Your task to perform on an android device: turn smart compose on in the gmail app Image 0: 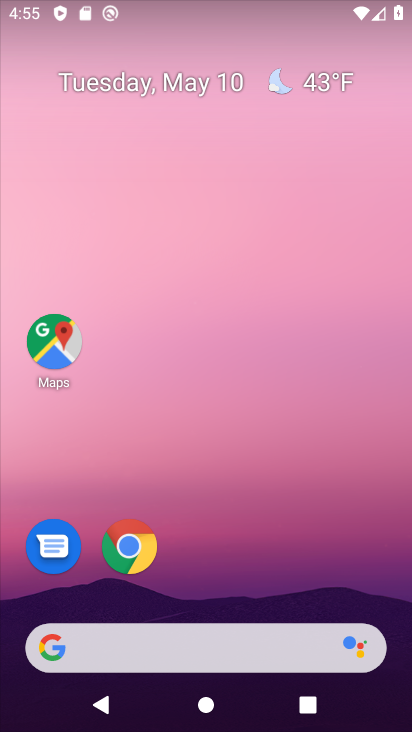
Step 0: drag from (383, 676) to (157, 142)
Your task to perform on an android device: turn smart compose on in the gmail app Image 1: 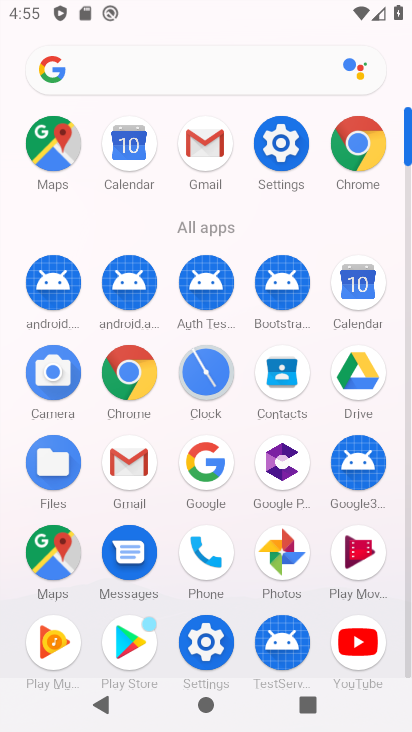
Step 1: click (114, 433)
Your task to perform on an android device: turn smart compose on in the gmail app Image 2: 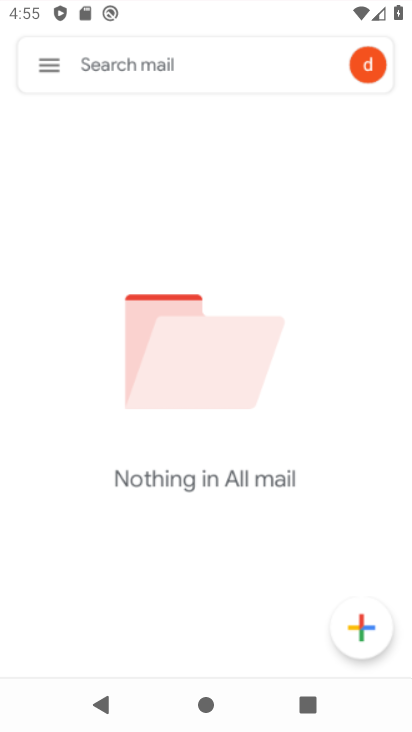
Step 2: click (120, 448)
Your task to perform on an android device: turn smart compose on in the gmail app Image 3: 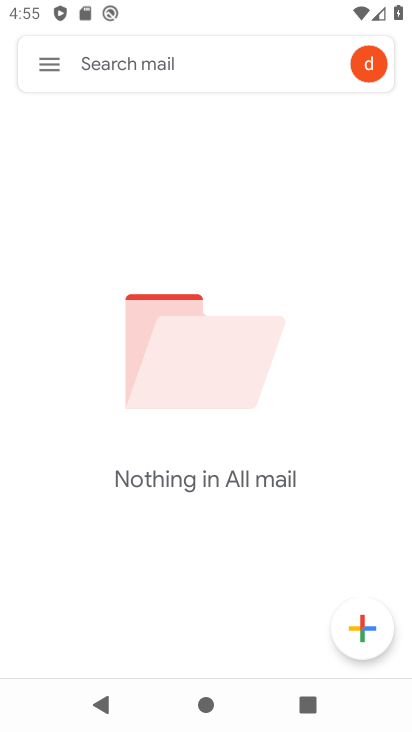
Step 3: click (47, 61)
Your task to perform on an android device: turn smart compose on in the gmail app Image 4: 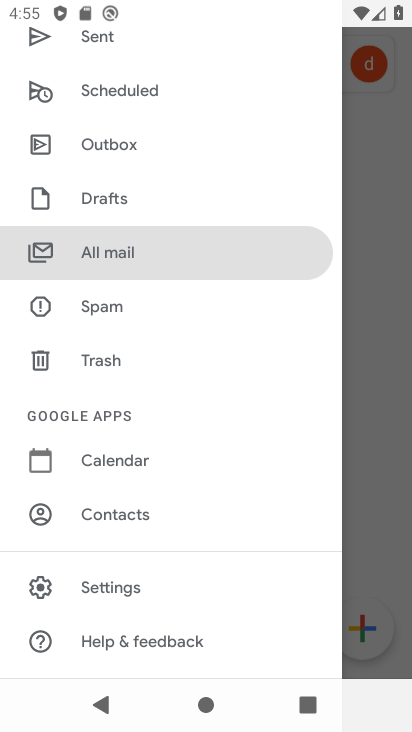
Step 4: click (104, 577)
Your task to perform on an android device: turn smart compose on in the gmail app Image 5: 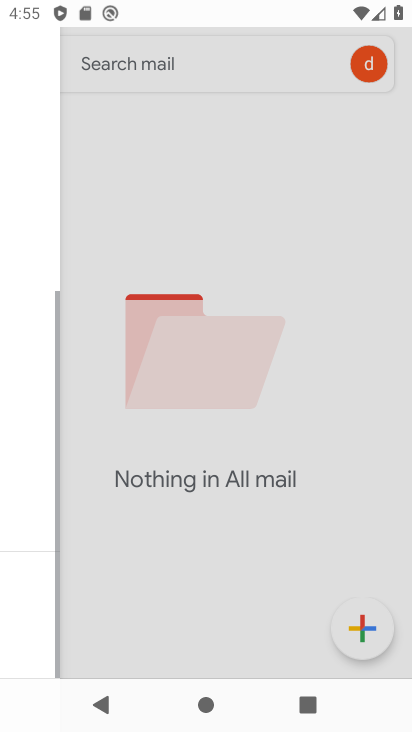
Step 5: click (110, 585)
Your task to perform on an android device: turn smart compose on in the gmail app Image 6: 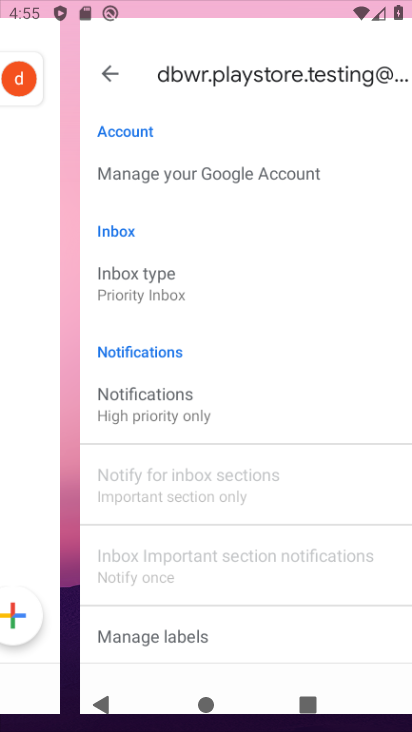
Step 6: click (110, 585)
Your task to perform on an android device: turn smart compose on in the gmail app Image 7: 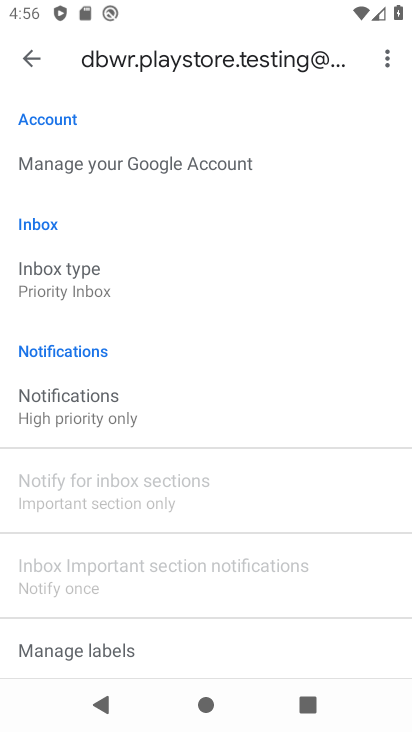
Step 7: drag from (83, 520) to (61, 212)
Your task to perform on an android device: turn smart compose on in the gmail app Image 8: 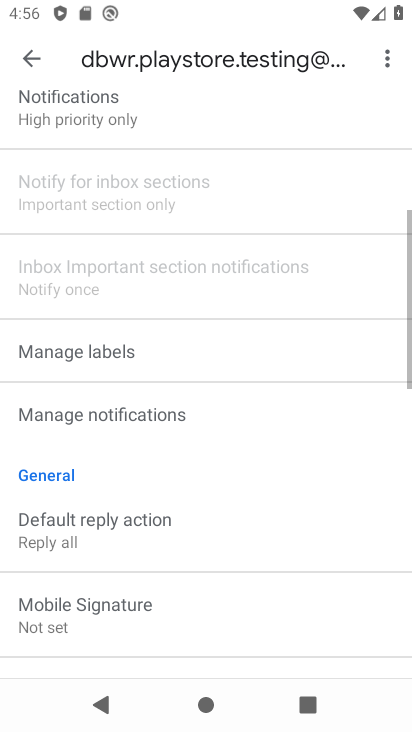
Step 8: drag from (191, 556) to (157, 195)
Your task to perform on an android device: turn smart compose on in the gmail app Image 9: 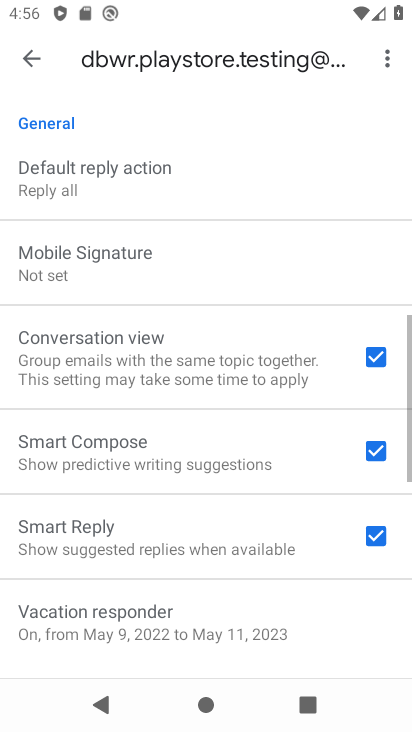
Step 9: drag from (260, 593) to (205, 256)
Your task to perform on an android device: turn smart compose on in the gmail app Image 10: 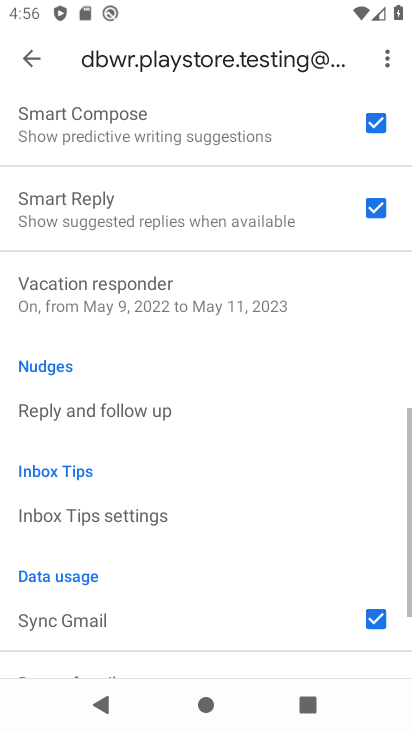
Step 10: drag from (240, 520) to (113, 212)
Your task to perform on an android device: turn smart compose on in the gmail app Image 11: 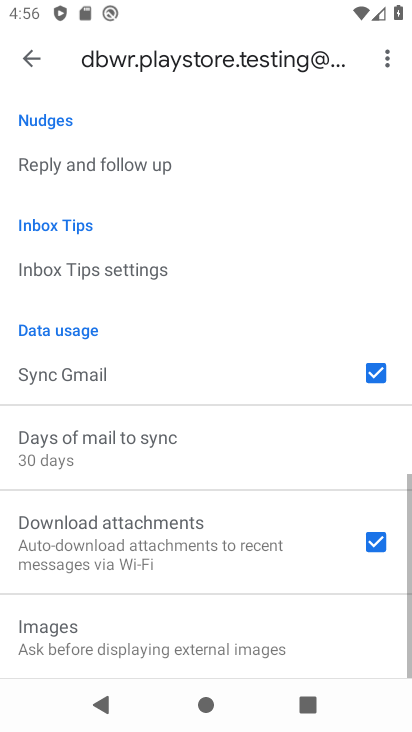
Step 11: drag from (146, 587) to (66, 266)
Your task to perform on an android device: turn smart compose on in the gmail app Image 12: 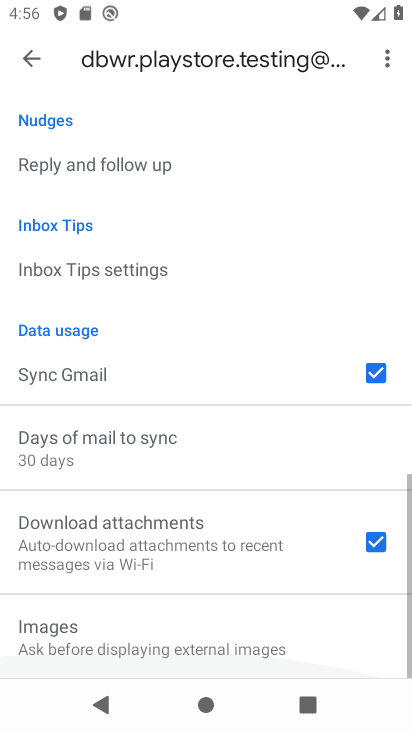
Step 12: drag from (146, 570) to (17, 111)
Your task to perform on an android device: turn smart compose on in the gmail app Image 13: 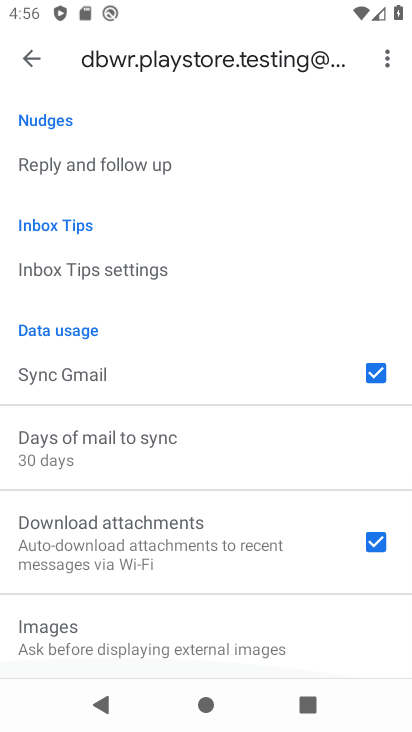
Step 13: drag from (105, 595) to (58, 169)
Your task to perform on an android device: turn smart compose on in the gmail app Image 14: 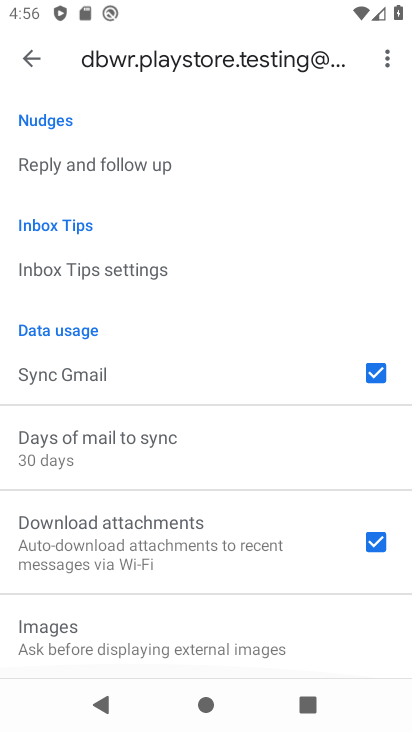
Step 14: drag from (142, 545) to (92, 64)
Your task to perform on an android device: turn smart compose on in the gmail app Image 15: 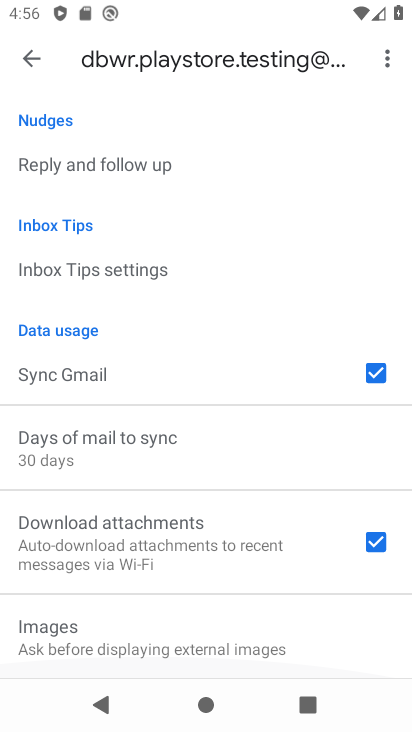
Step 15: drag from (204, 518) to (173, 128)
Your task to perform on an android device: turn smart compose on in the gmail app Image 16: 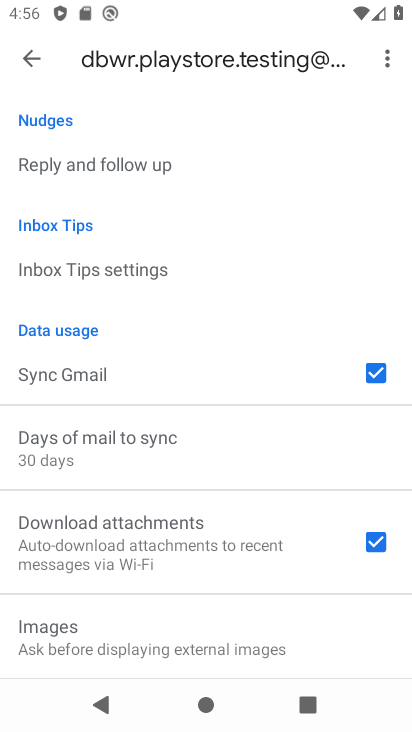
Step 16: drag from (100, 537) to (37, 112)
Your task to perform on an android device: turn smart compose on in the gmail app Image 17: 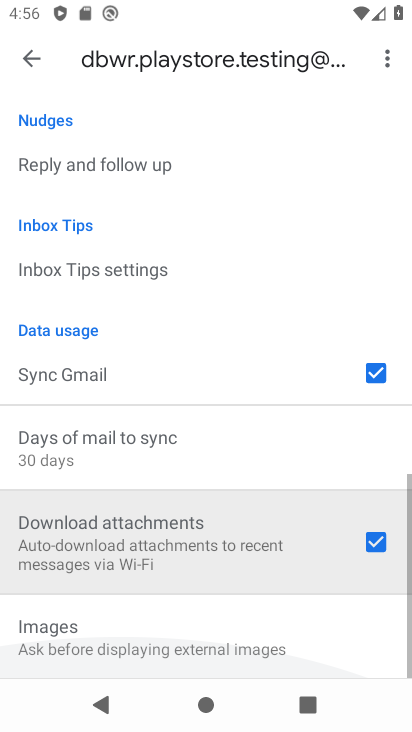
Step 17: drag from (224, 528) to (158, 33)
Your task to perform on an android device: turn smart compose on in the gmail app Image 18: 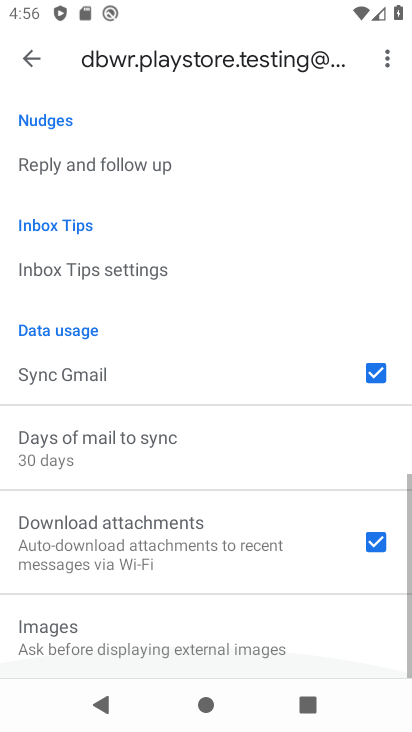
Step 18: drag from (240, 495) to (183, 168)
Your task to perform on an android device: turn smart compose on in the gmail app Image 19: 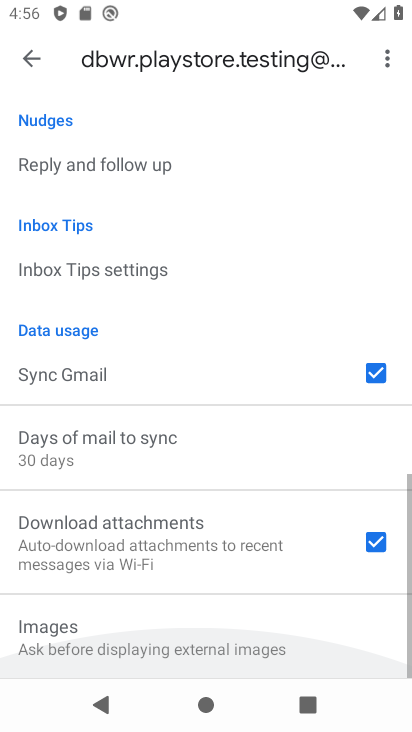
Step 19: drag from (243, 538) to (179, 79)
Your task to perform on an android device: turn smart compose on in the gmail app Image 20: 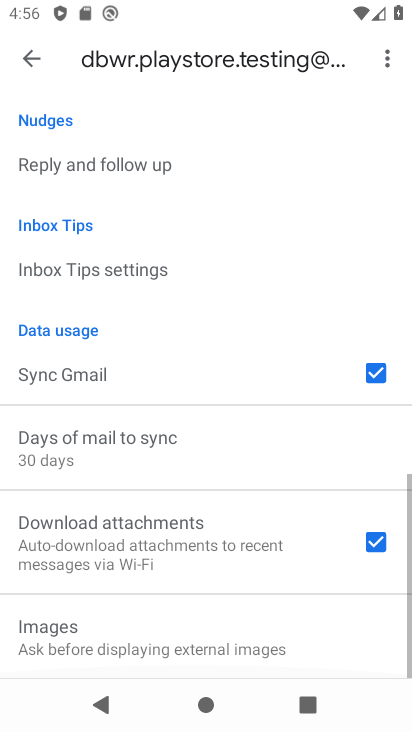
Step 20: drag from (231, 563) to (170, 90)
Your task to perform on an android device: turn smart compose on in the gmail app Image 21: 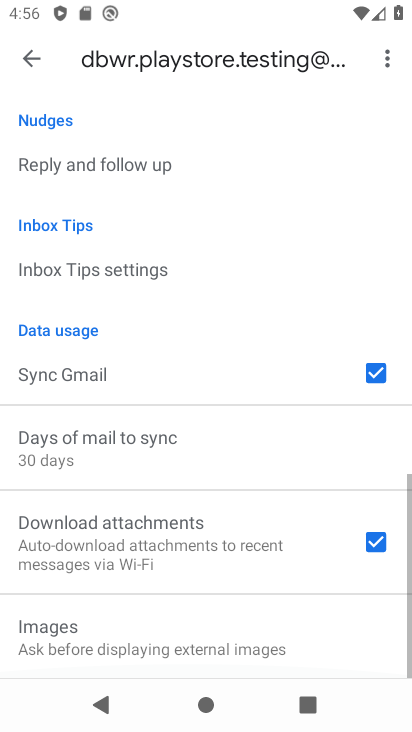
Step 21: drag from (212, 476) to (87, 33)
Your task to perform on an android device: turn smart compose on in the gmail app Image 22: 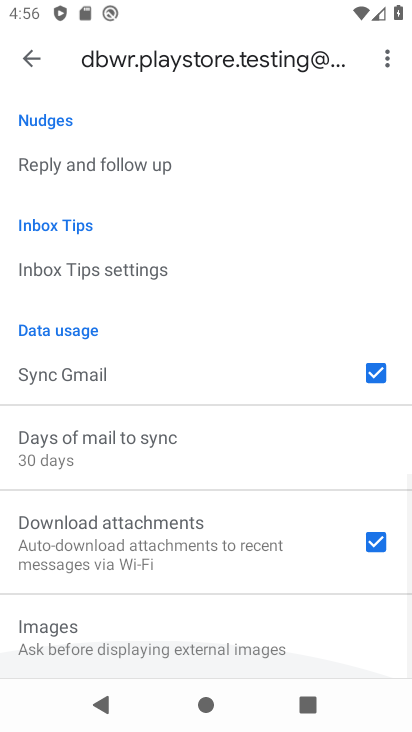
Step 22: drag from (185, 484) to (140, 61)
Your task to perform on an android device: turn smart compose on in the gmail app Image 23: 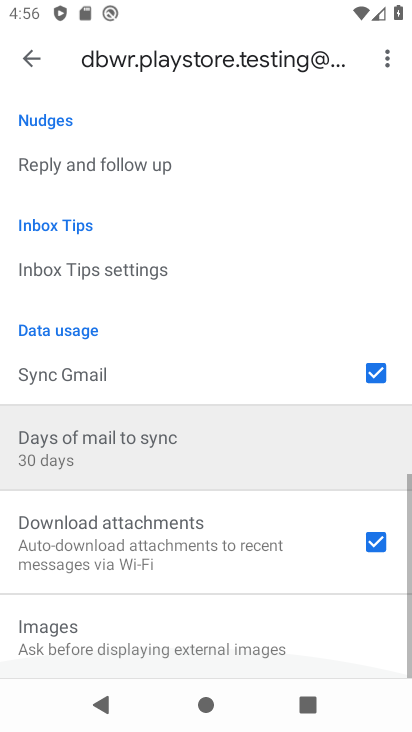
Step 23: click (158, 157)
Your task to perform on an android device: turn smart compose on in the gmail app Image 24: 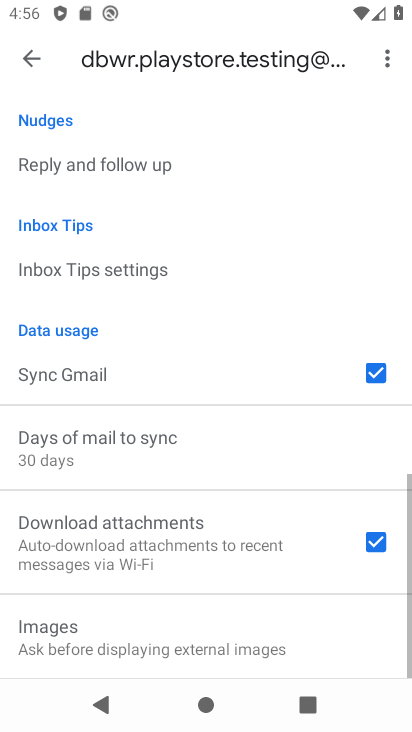
Step 24: drag from (271, 567) to (226, 271)
Your task to perform on an android device: turn smart compose on in the gmail app Image 25: 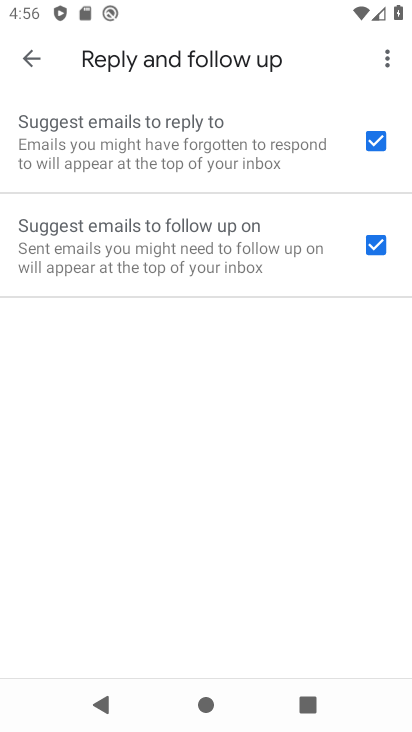
Step 25: drag from (160, 456) to (70, 3)
Your task to perform on an android device: turn smart compose on in the gmail app Image 26: 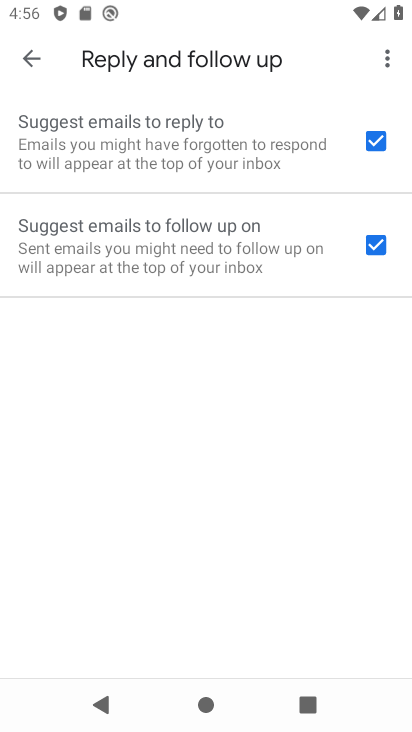
Step 26: drag from (178, 363) to (156, 150)
Your task to perform on an android device: turn smart compose on in the gmail app Image 27: 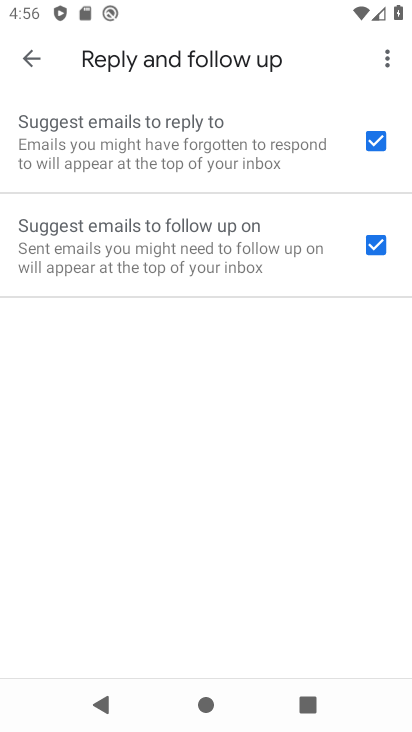
Step 27: drag from (182, 466) to (93, 177)
Your task to perform on an android device: turn smart compose on in the gmail app Image 28: 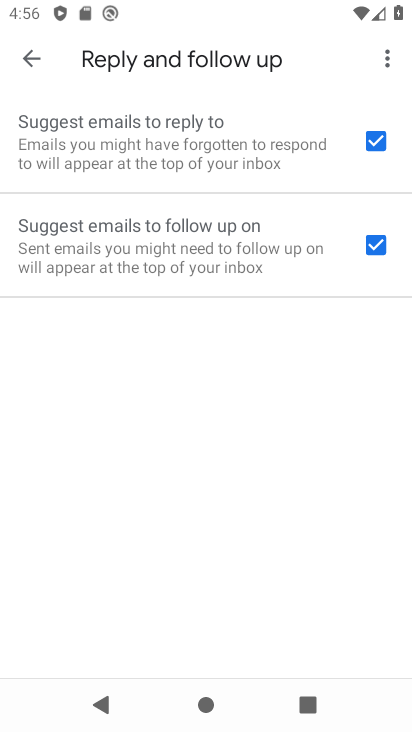
Step 28: click (23, 61)
Your task to perform on an android device: turn smart compose on in the gmail app Image 29: 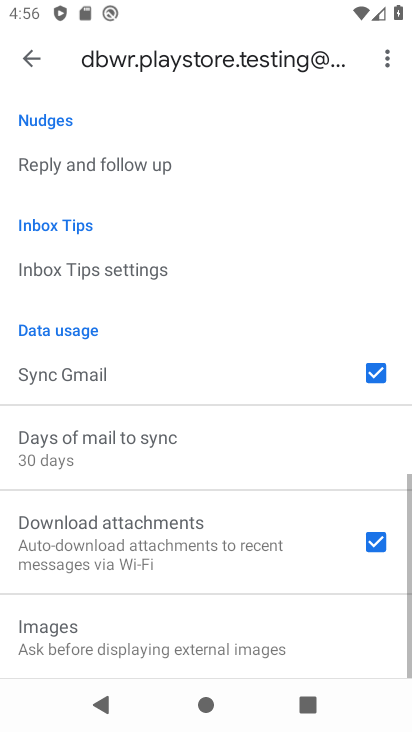
Step 29: task complete